Your task to perform on an android device: What's the price of the 2x4x8 boards at Home Depot? Image 0: 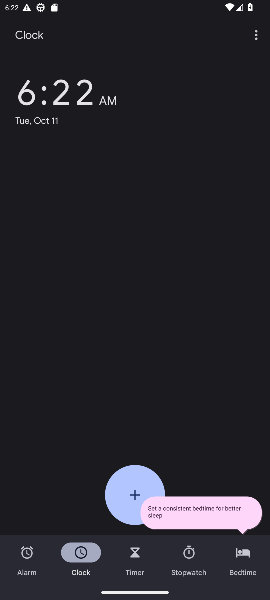
Step 0: press back button
Your task to perform on an android device: What's the price of the 2x4x8 boards at Home Depot? Image 1: 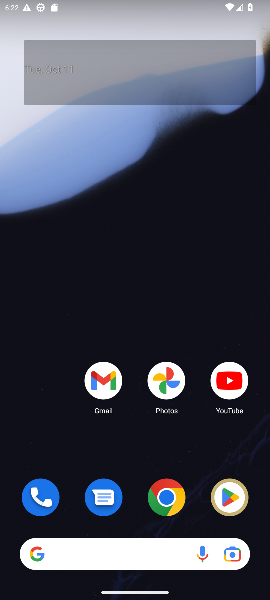
Step 1: drag from (134, 141) to (134, 239)
Your task to perform on an android device: What's the price of the 2x4x8 boards at Home Depot? Image 2: 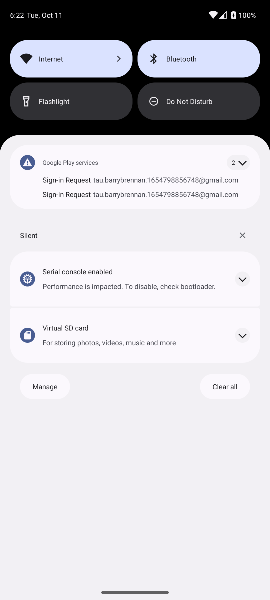
Step 2: drag from (129, 44) to (103, 476)
Your task to perform on an android device: What's the price of the 2x4x8 boards at Home Depot? Image 3: 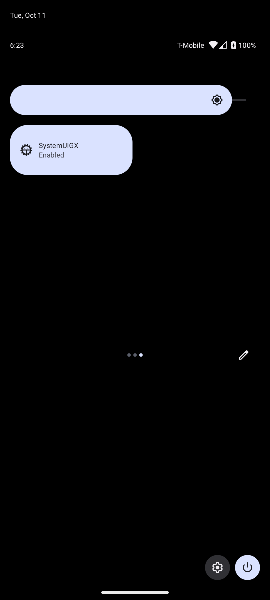
Step 3: press back button
Your task to perform on an android device: What's the price of the 2x4x8 boards at Home Depot? Image 4: 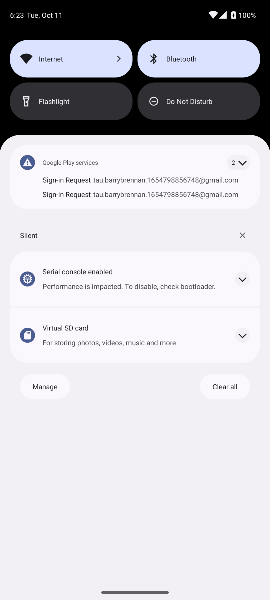
Step 4: click (113, 286)
Your task to perform on an android device: What's the price of the 2x4x8 boards at Home Depot? Image 5: 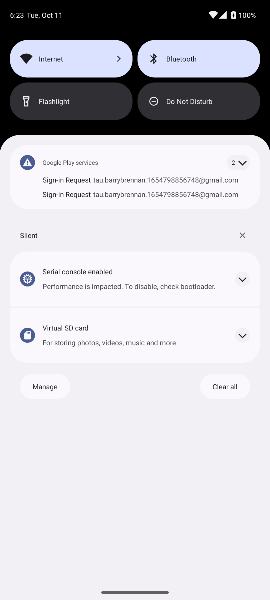
Step 5: task complete